Your task to perform on an android device: Open Chrome and go to the settings page Image 0: 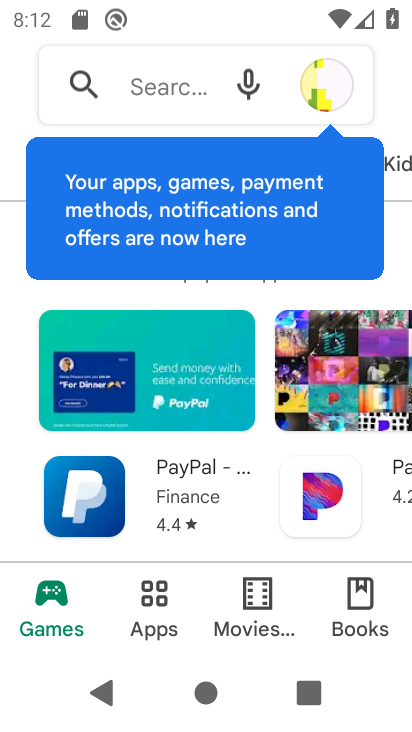
Step 0: press home button
Your task to perform on an android device: Open Chrome and go to the settings page Image 1: 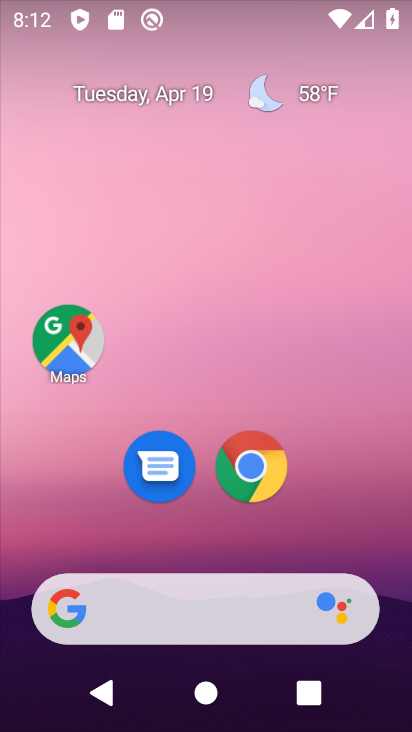
Step 1: drag from (302, 389) to (279, 168)
Your task to perform on an android device: Open Chrome and go to the settings page Image 2: 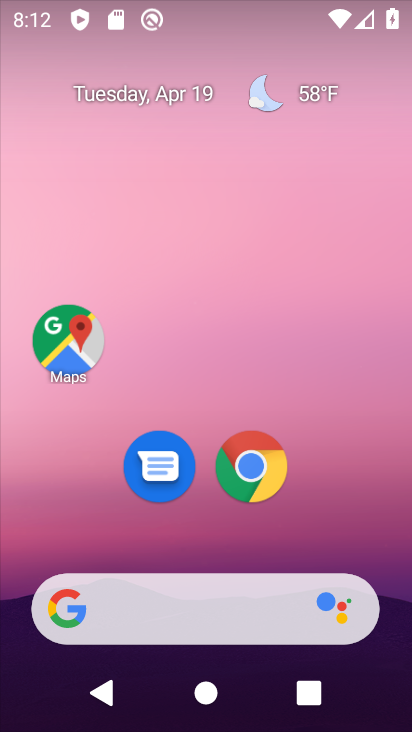
Step 2: drag from (344, 543) to (304, 180)
Your task to perform on an android device: Open Chrome and go to the settings page Image 3: 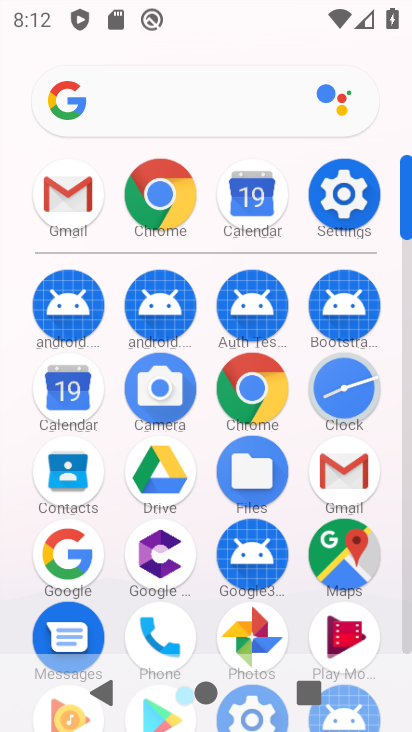
Step 3: click (252, 379)
Your task to perform on an android device: Open Chrome and go to the settings page Image 4: 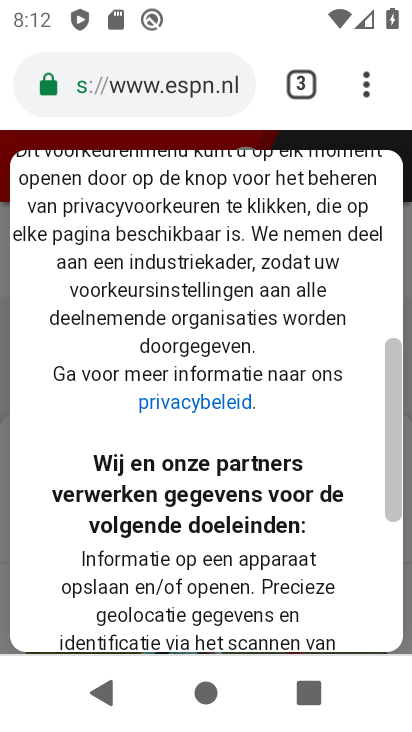
Step 4: click (365, 87)
Your task to perform on an android device: Open Chrome and go to the settings page Image 5: 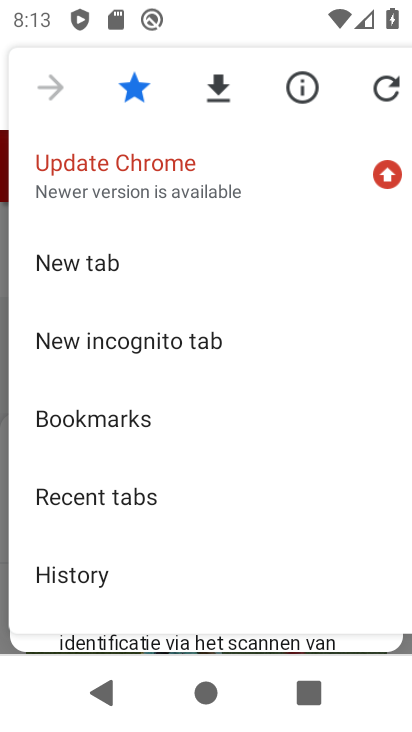
Step 5: drag from (225, 567) to (259, 180)
Your task to perform on an android device: Open Chrome and go to the settings page Image 6: 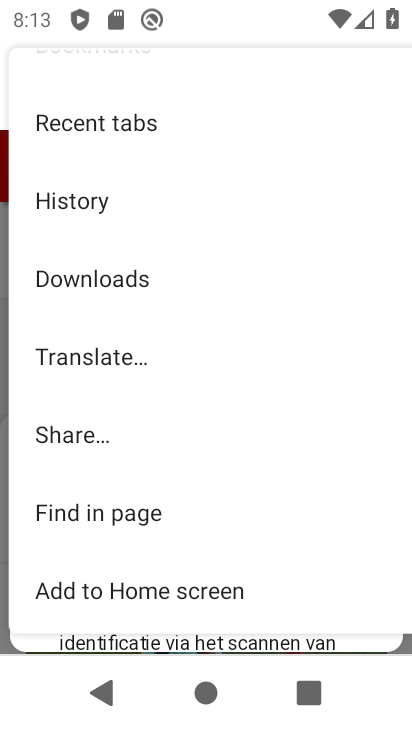
Step 6: drag from (309, 580) to (289, 142)
Your task to perform on an android device: Open Chrome and go to the settings page Image 7: 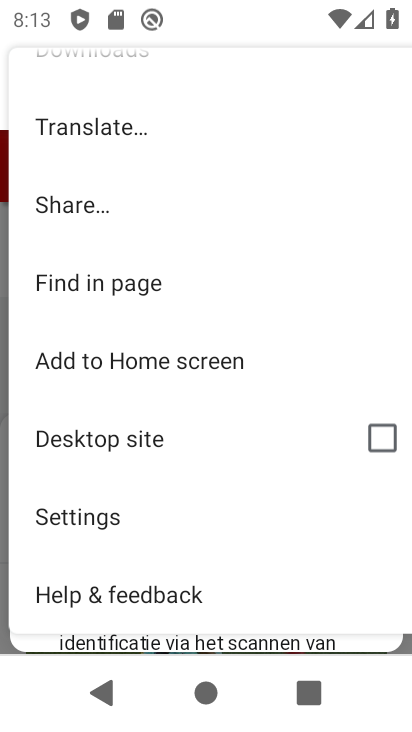
Step 7: click (106, 510)
Your task to perform on an android device: Open Chrome and go to the settings page Image 8: 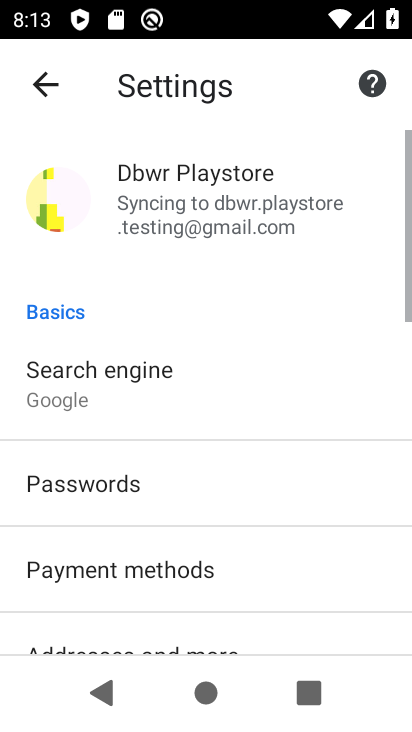
Step 8: task complete